Your task to perform on an android device: Open sound settings Image 0: 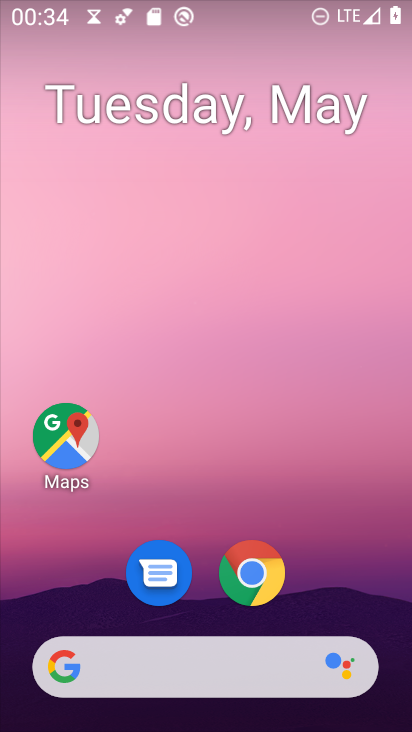
Step 0: drag from (340, 584) to (229, 41)
Your task to perform on an android device: Open sound settings Image 1: 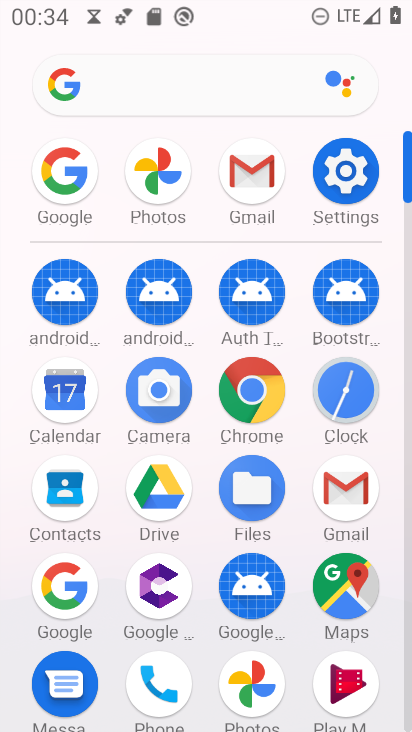
Step 1: click (344, 154)
Your task to perform on an android device: Open sound settings Image 2: 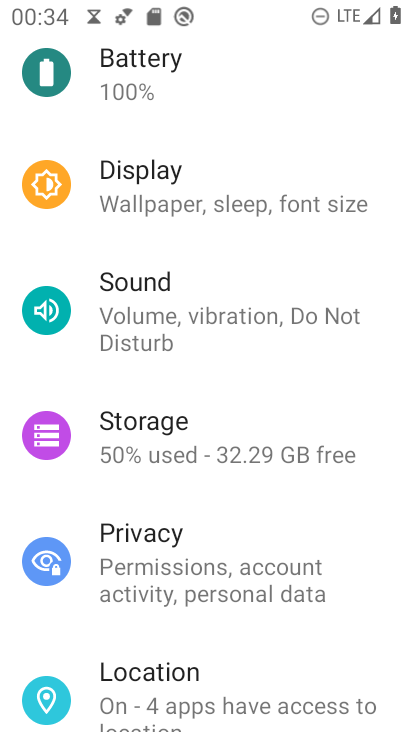
Step 2: click (204, 307)
Your task to perform on an android device: Open sound settings Image 3: 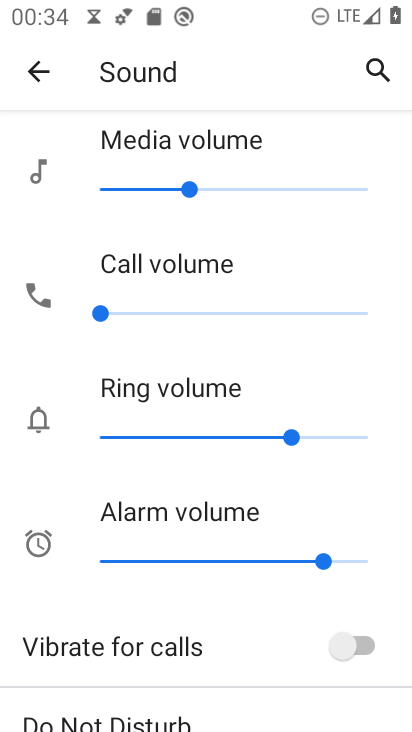
Step 3: task complete